Your task to perform on an android device: set default search engine in the chrome app Image 0: 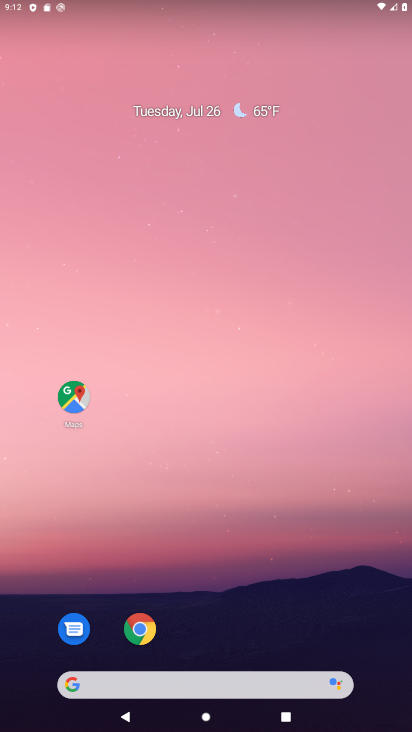
Step 0: drag from (306, 594) to (312, 94)
Your task to perform on an android device: set default search engine in the chrome app Image 1: 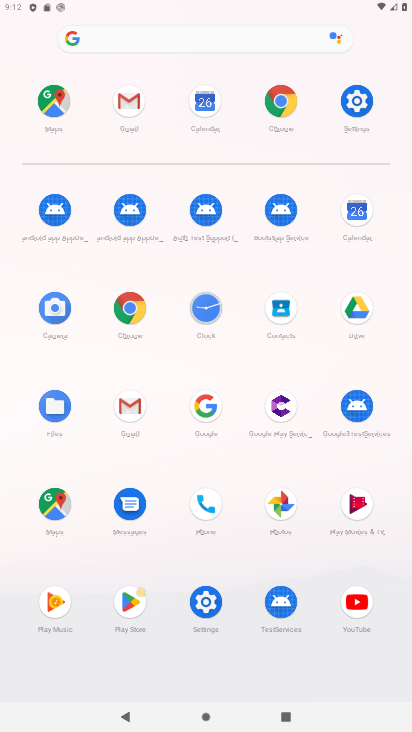
Step 1: click (289, 102)
Your task to perform on an android device: set default search engine in the chrome app Image 2: 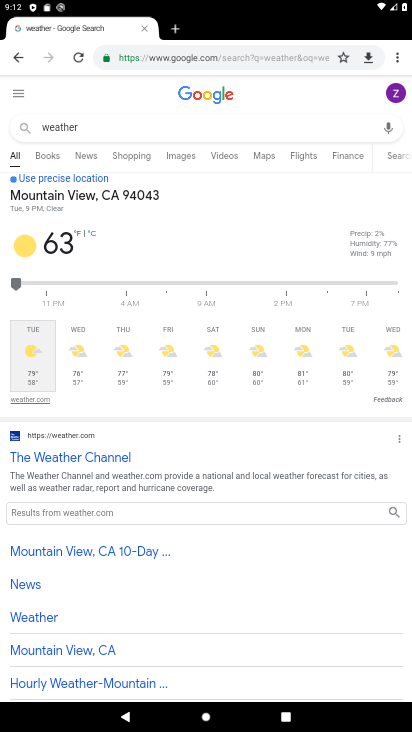
Step 2: drag from (401, 53) to (281, 345)
Your task to perform on an android device: set default search engine in the chrome app Image 3: 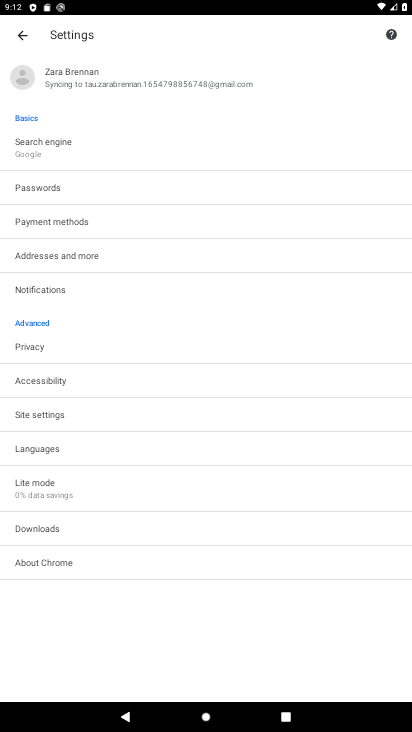
Step 3: click (46, 154)
Your task to perform on an android device: set default search engine in the chrome app Image 4: 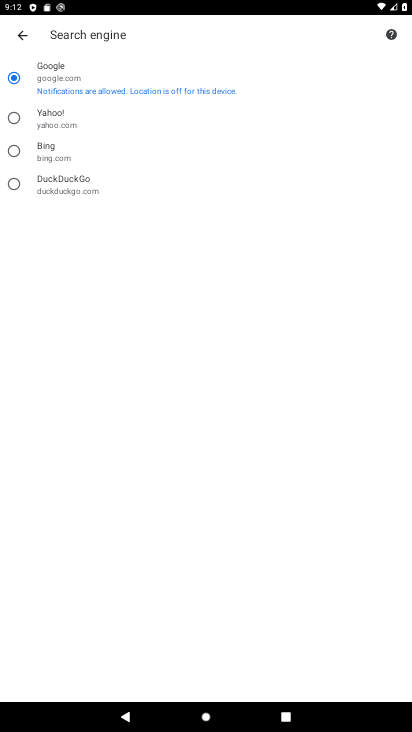
Step 4: task complete